Your task to perform on an android device: Open CNN.com Image 0: 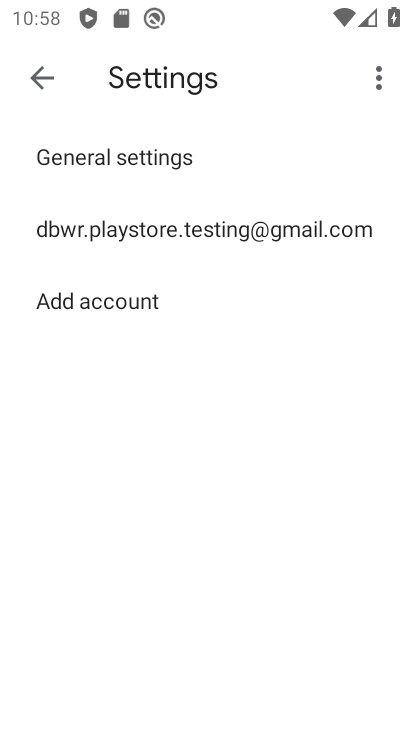
Step 0: press home button
Your task to perform on an android device: Open CNN.com Image 1: 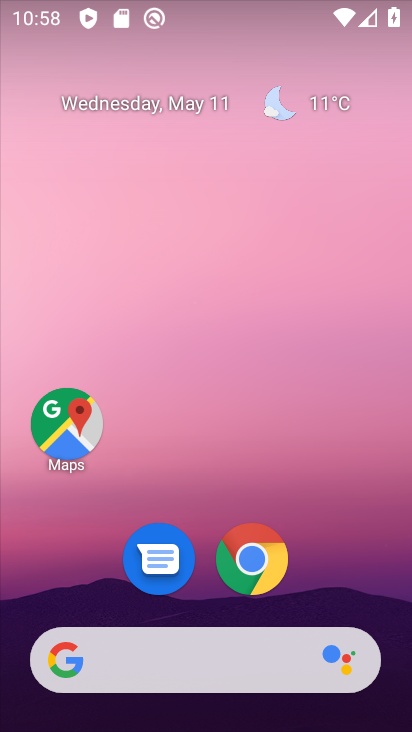
Step 1: click (241, 573)
Your task to perform on an android device: Open CNN.com Image 2: 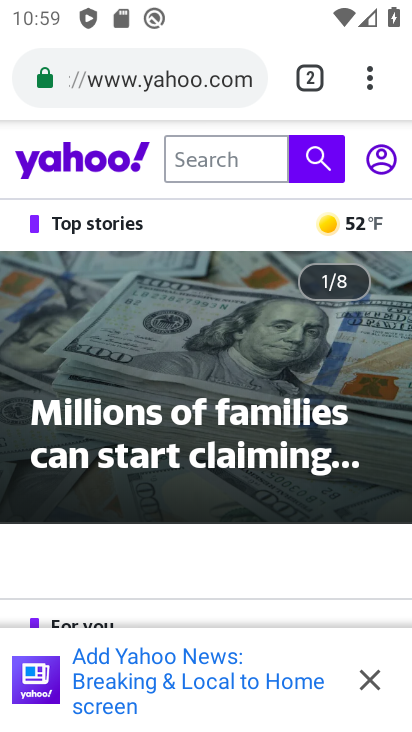
Step 2: click (173, 80)
Your task to perform on an android device: Open CNN.com Image 3: 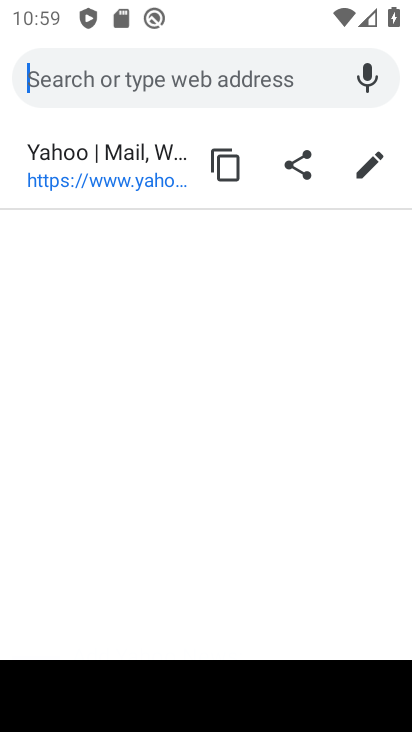
Step 3: type "cnn.com"
Your task to perform on an android device: Open CNN.com Image 4: 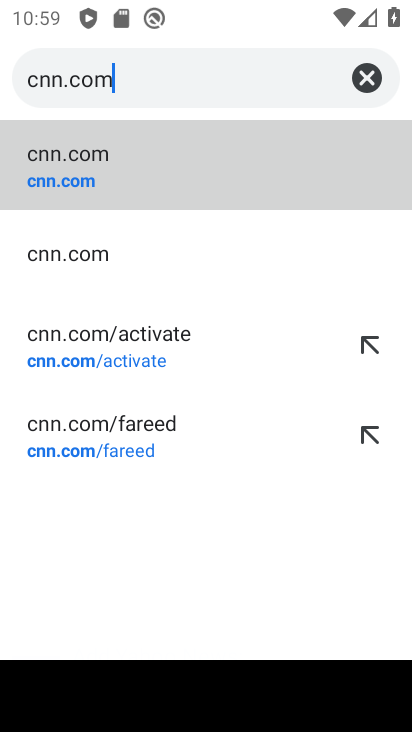
Step 4: click (60, 176)
Your task to perform on an android device: Open CNN.com Image 5: 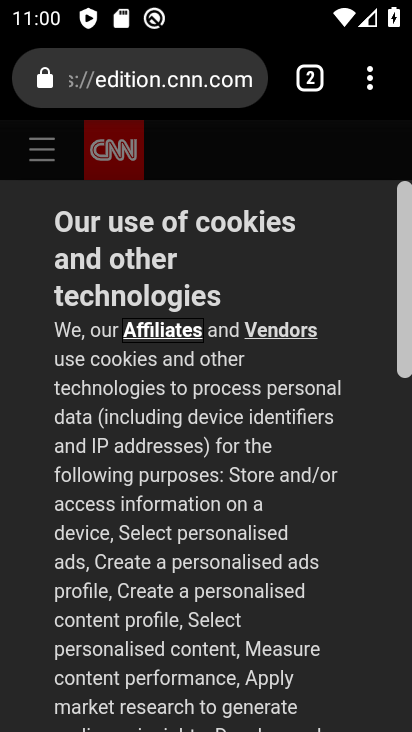
Step 5: task complete